Your task to perform on an android device: Go to network settings Image 0: 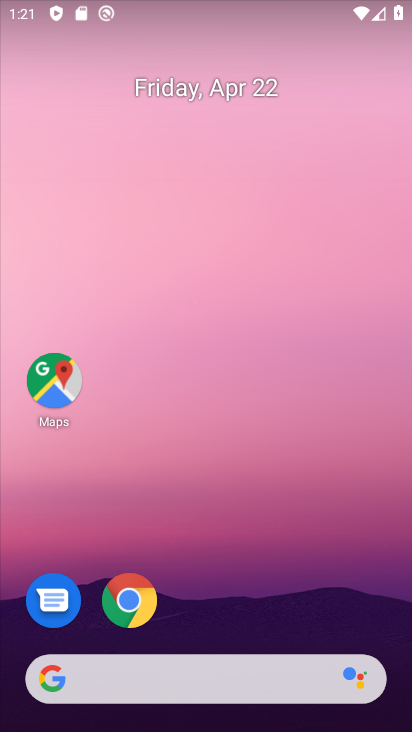
Step 0: drag from (175, 307) to (172, 225)
Your task to perform on an android device: Go to network settings Image 1: 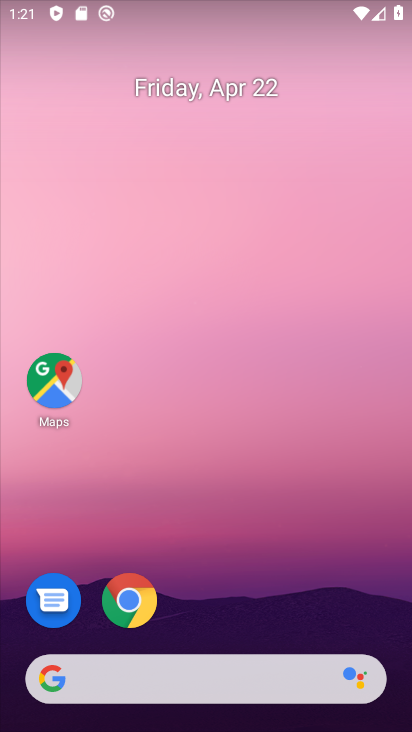
Step 1: drag from (180, 611) to (244, 44)
Your task to perform on an android device: Go to network settings Image 2: 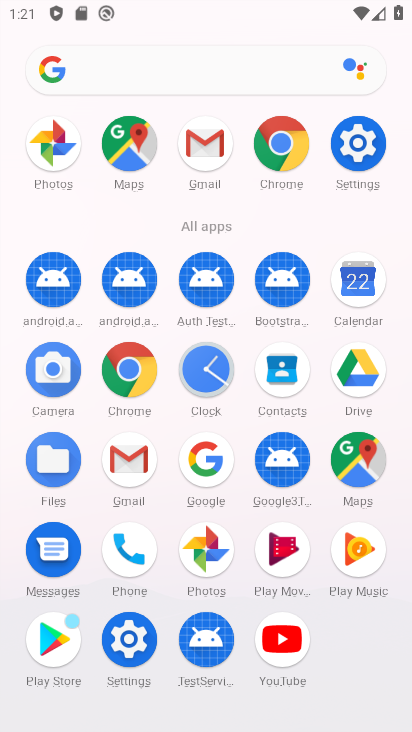
Step 2: click (353, 151)
Your task to perform on an android device: Go to network settings Image 3: 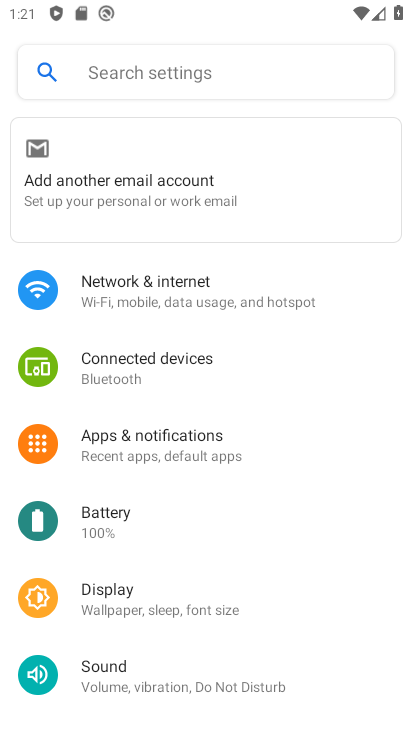
Step 3: click (252, 302)
Your task to perform on an android device: Go to network settings Image 4: 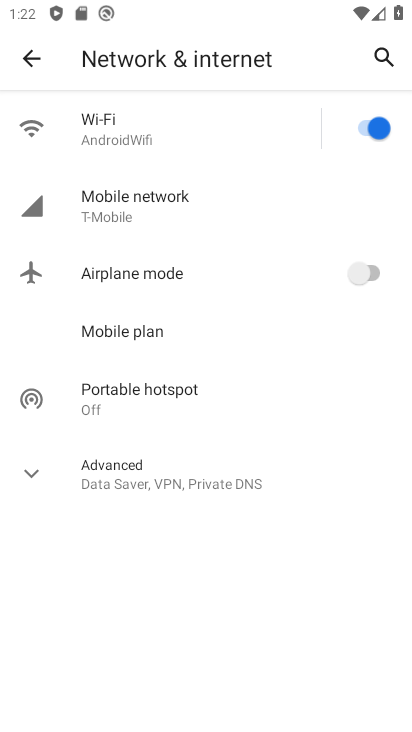
Step 4: task complete